Your task to perform on an android device: Play the last video I watched on Youtube Image 0: 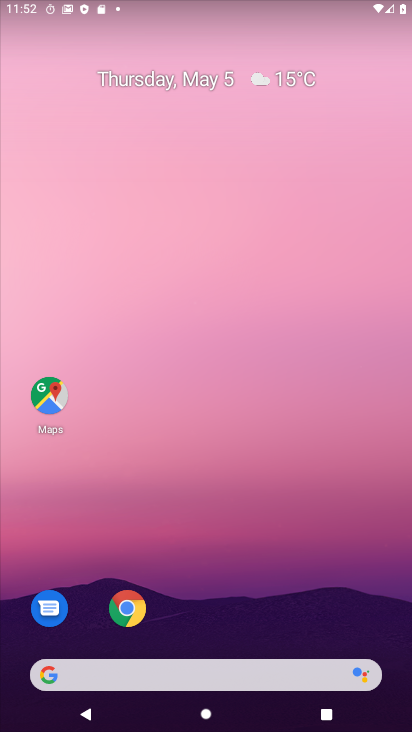
Step 0: drag from (223, 609) to (146, 50)
Your task to perform on an android device: Play the last video I watched on Youtube Image 1: 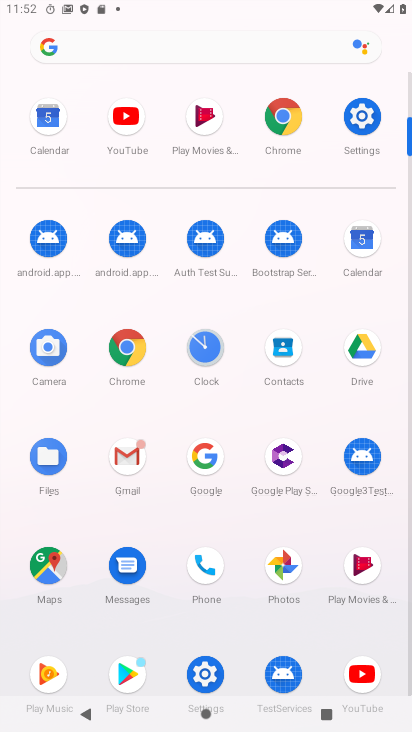
Step 1: click (123, 112)
Your task to perform on an android device: Play the last video I watched on Youtube Image 2: 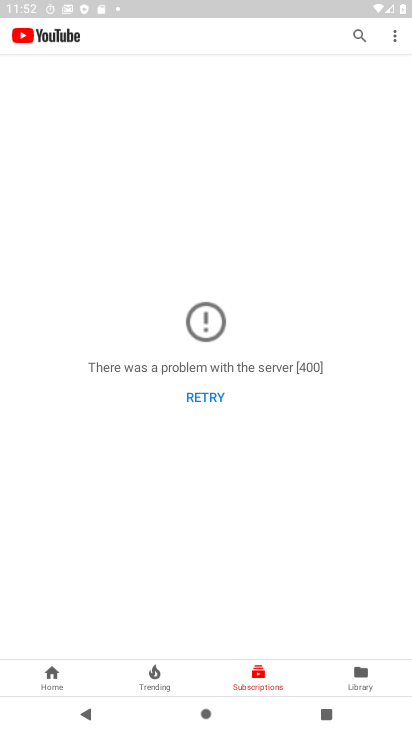
Step 2: click (359, 677)
Your task to perform on an android device: Play the last video I watched on Youtube Image 3: 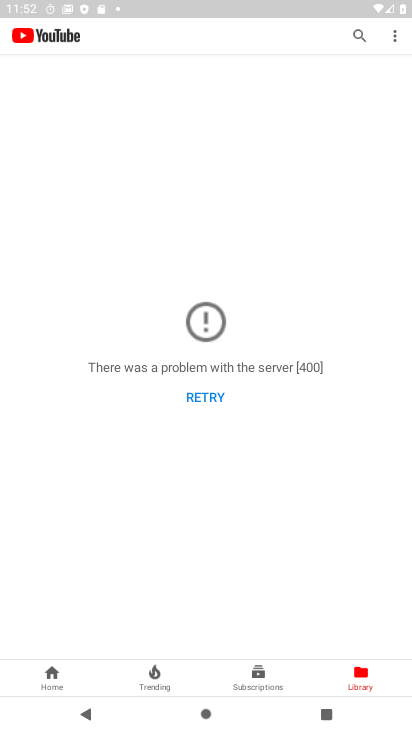
Step 3: click (359, 677)
Your task to perform on an android device: Play the last video I watched on Youtube Image 4: 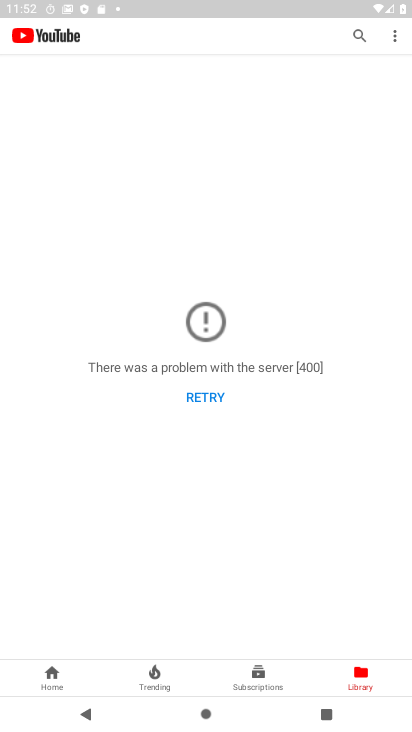
Step 4: click (52, 678)
Your task to perform on an android device: Play the last video I watched on Youtube Image 5: 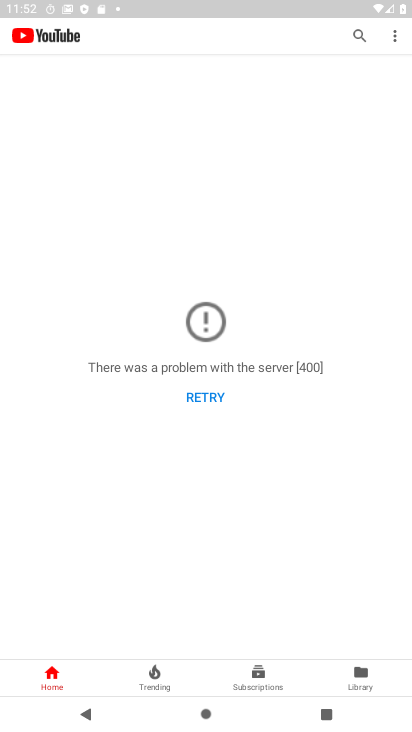
Step 5: click (195, 396)
Your task to perform on an android device: Play the last video I watched on Youtube Image 6: 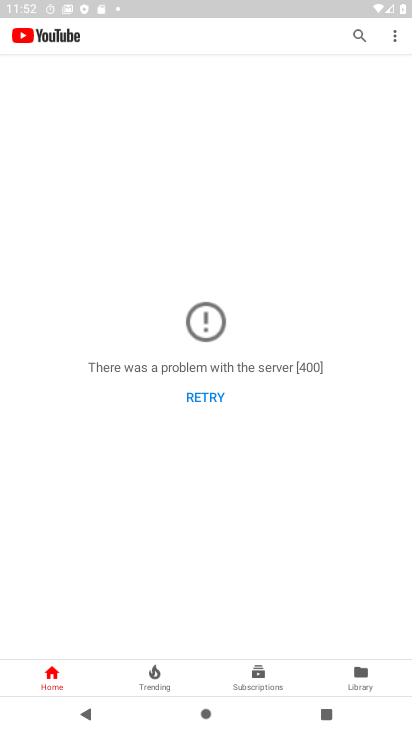
Step 6: click (195, 396)
Your task to perform on an android device: Play the last video I watched on Youtube Image 7: 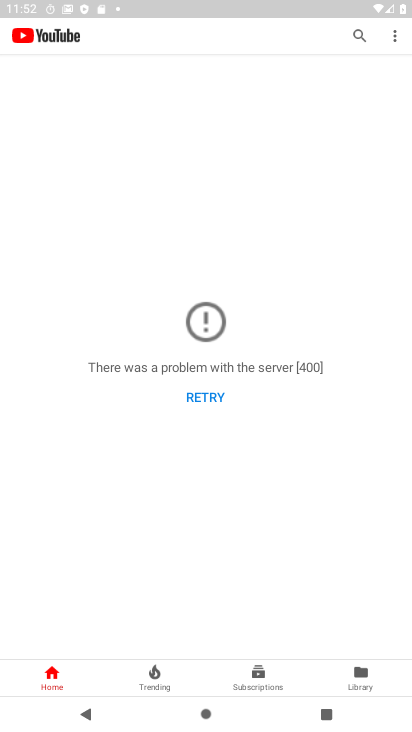
Step 7: task complete